Your task to perform on an android device: open app "Google Find My Device" (install if not already installed) Image 0: 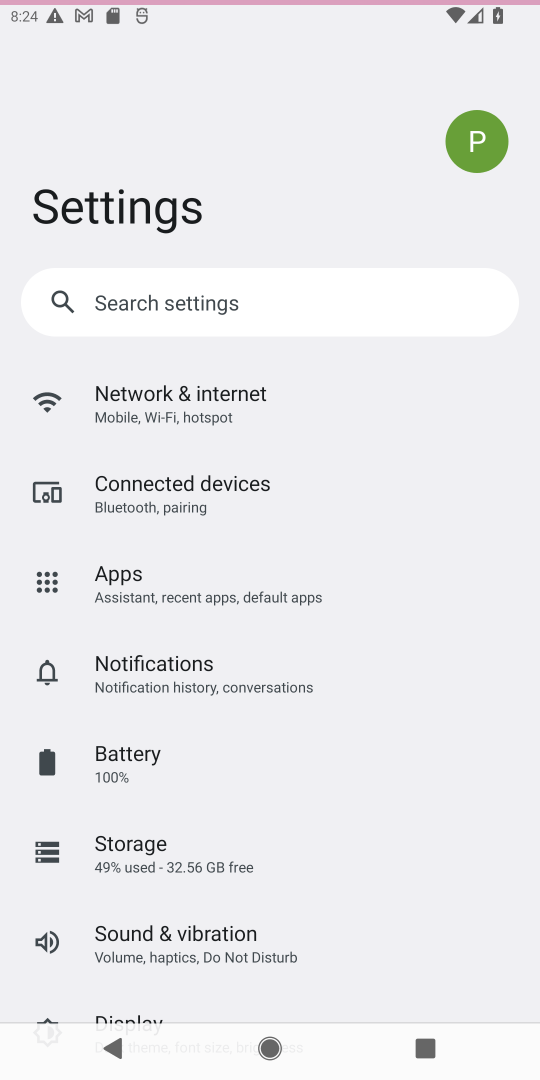
Step 0: press home button
Your task to perform on an android device: open app "Google Find My Device" (install if not already installed) Image 1: 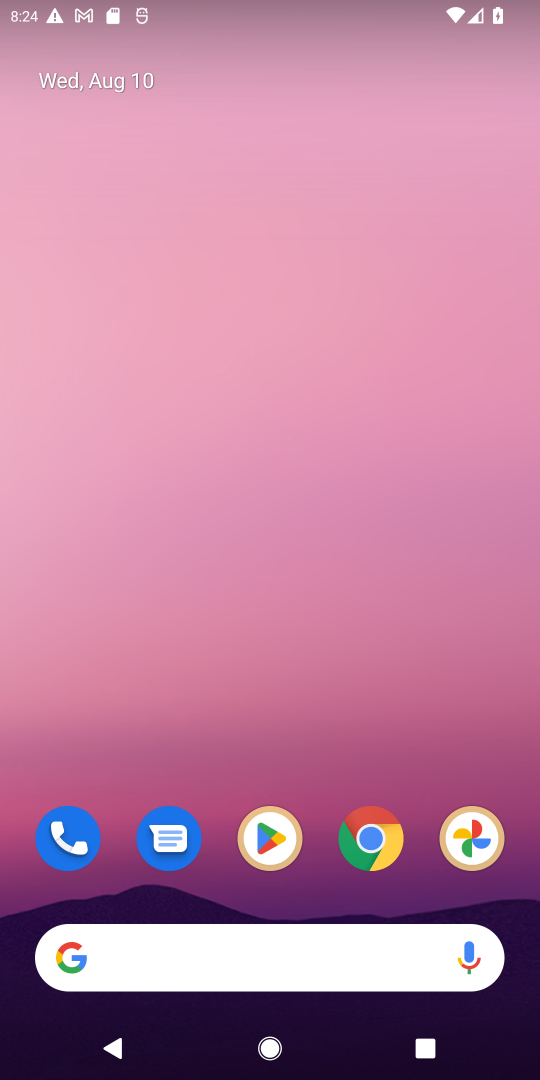
Step 1: click (276, 832)
Your task to perform on an android device: open app "Google Find My Device" (install if not already installed) Image 2: 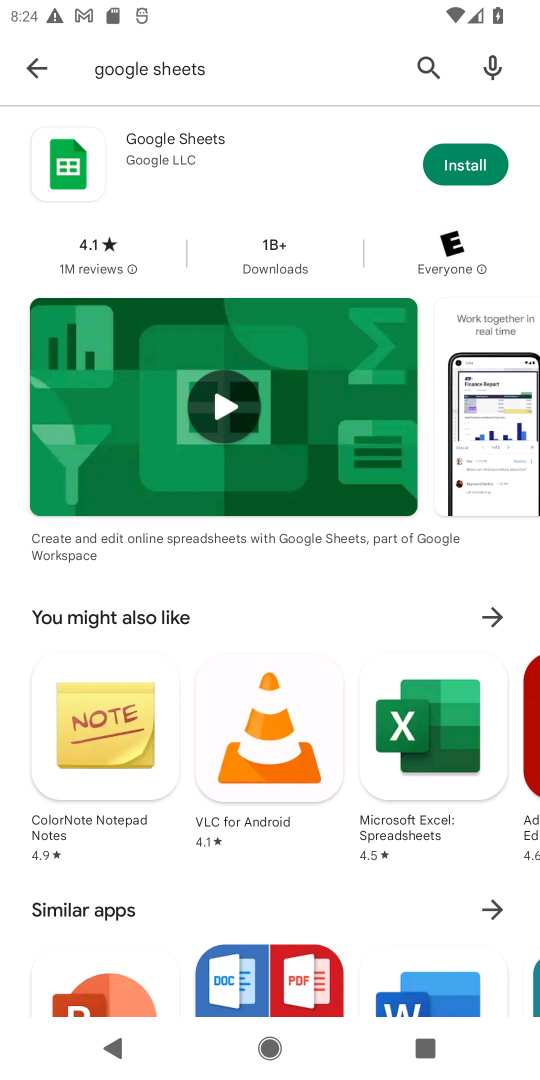
Step 2: click (420, 68)
Your task to perform on an android device: open app "Google Find My Device" (install if not already installed) Image 3: 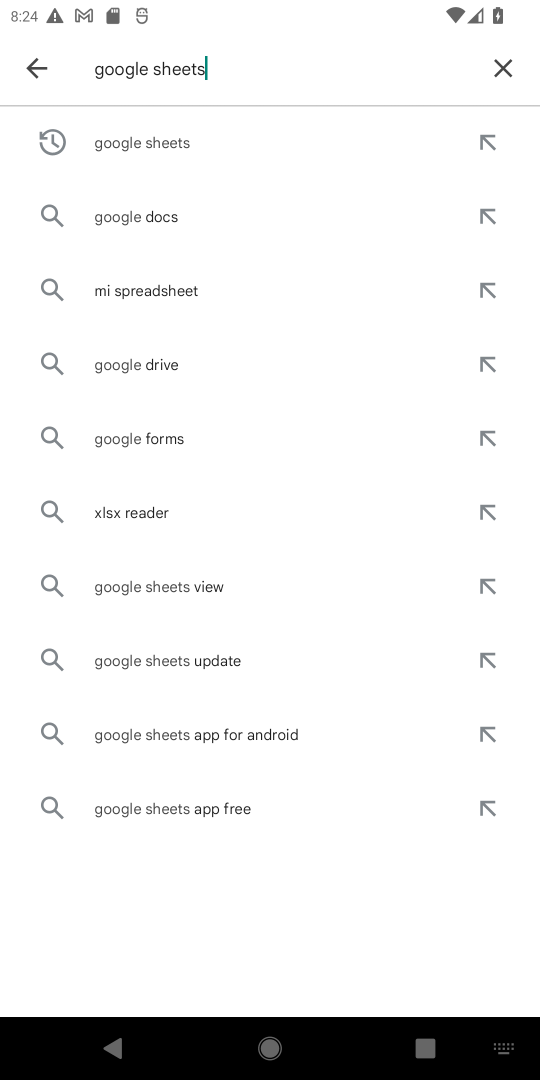
Step 3: click (499, 67)
Your task to perform on an android device: open app "Google Find My Device" (install if not already installed) Image 4: 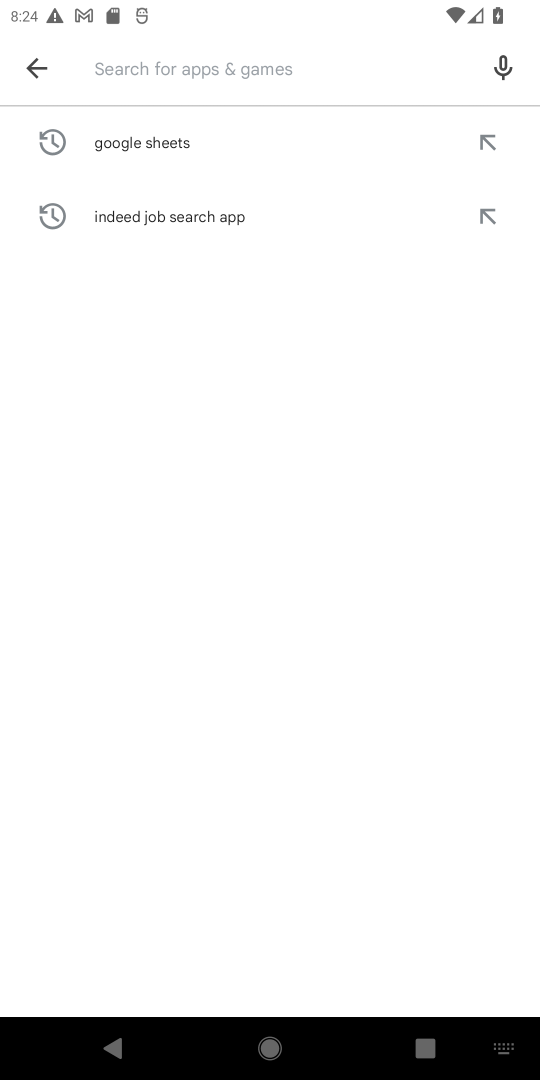
Step 4: type "Google Find My Device"
Your task to perform on an android device: open app "Google Find My Device" (install if not already installed) Image 5: 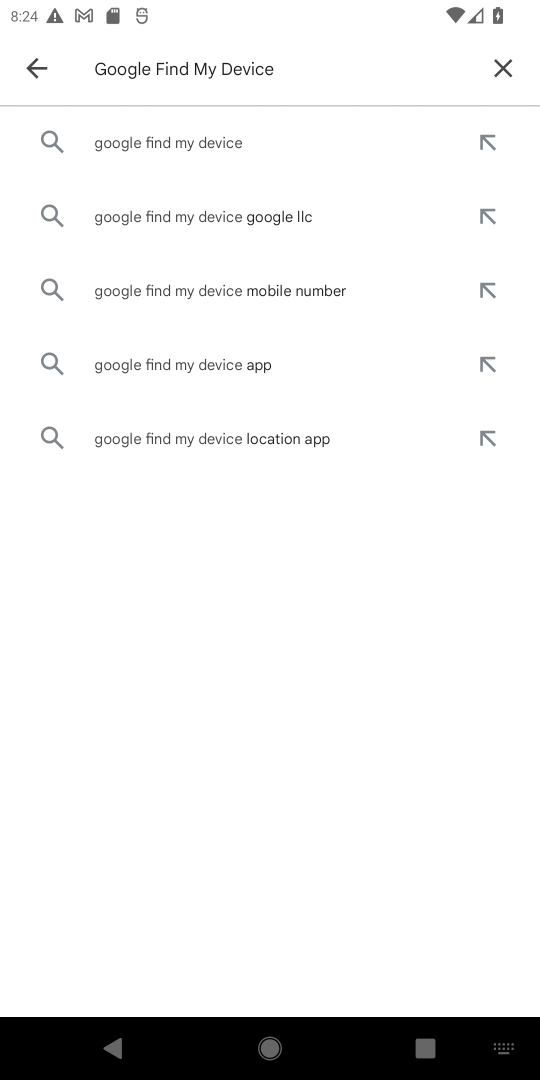
Step 5: click (205, 132)
Your task to perform on an android device: open app "Google Find My Device" (install if not already installed) Image 6: 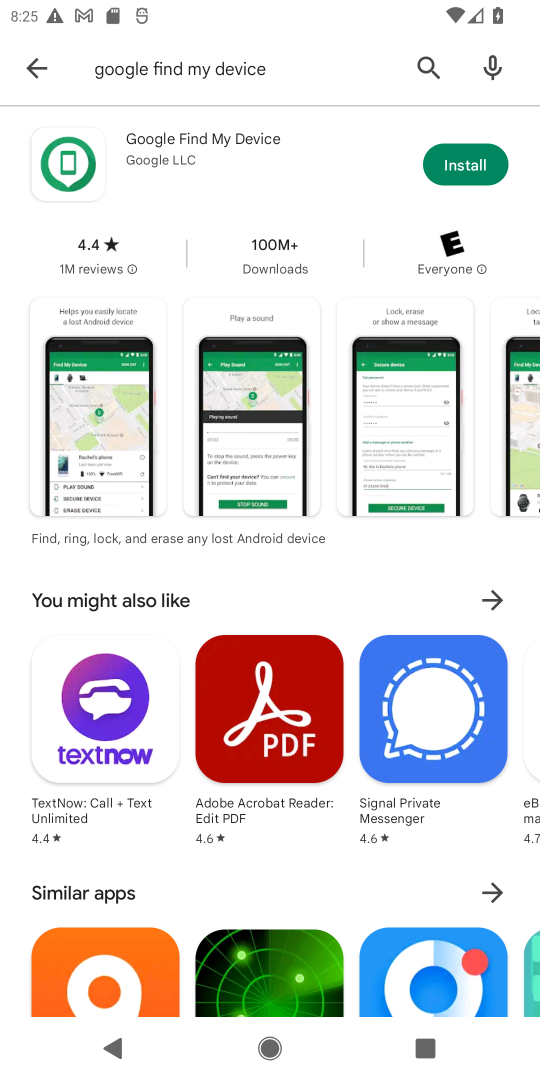
Step 6: click (466, 157)
Your task to perform on an android device: open app "Google Find My Device" (install if not already installed) Image 7: 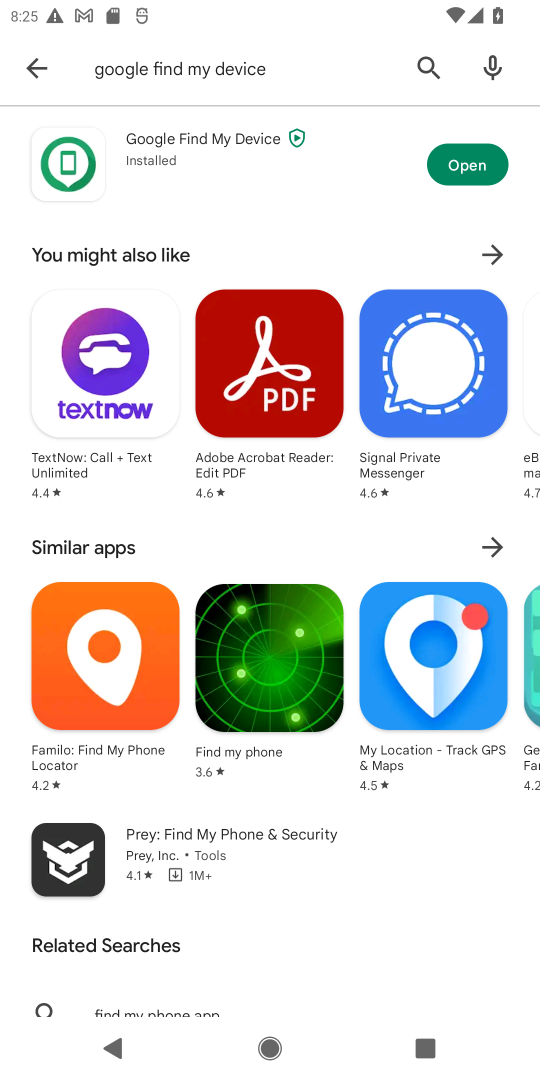
Step 7: click (465, 174)
Your task to perform on an android device: open app "Google Find My Device" (install if not already installed) Image 8: 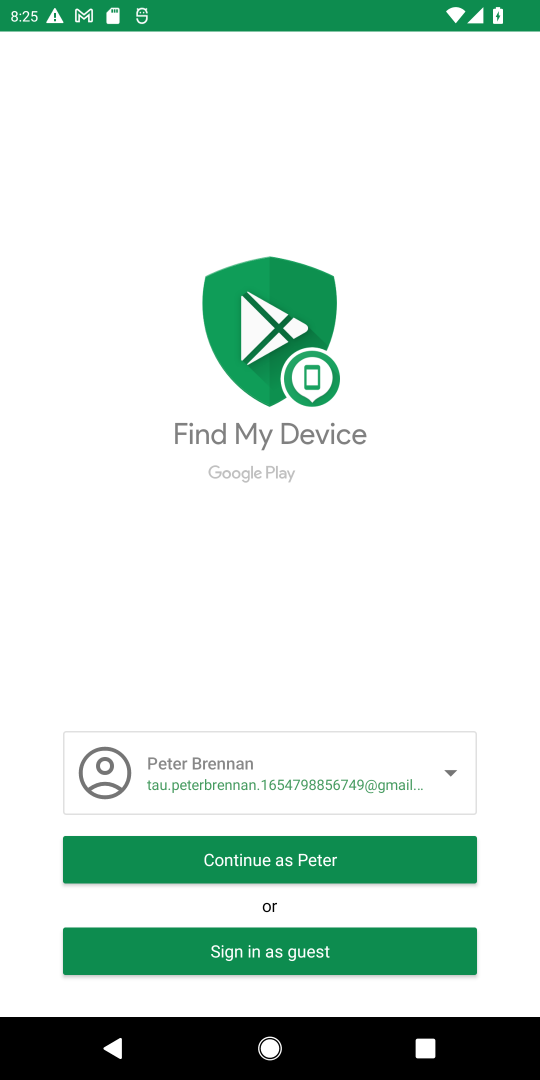
Step 8: click (265, 855)
Your task to perform on an android device: open app "Google Find My Device" (install if not already installed) Image 9: 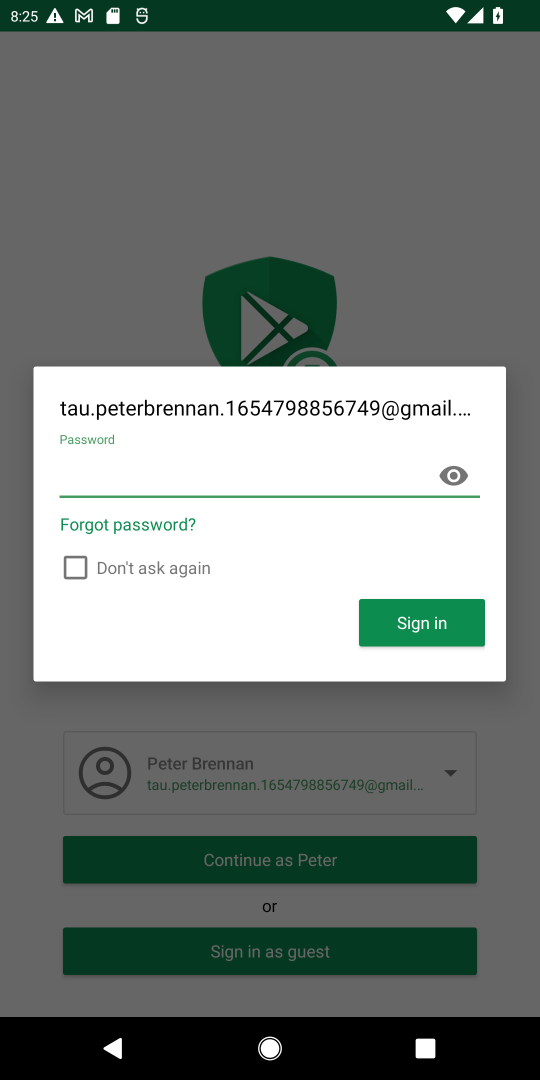
Step 9: click (192, 190)
Your task to perform on an android device: open app "Google Find My Device" (install if not already installed) Image 10: 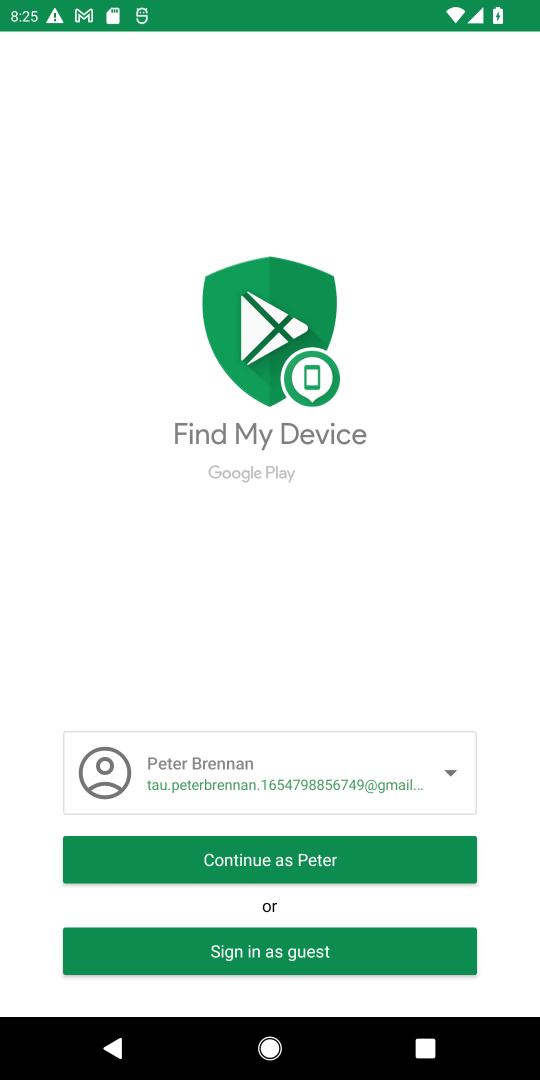
Step 10: click (311, 853)
Your task to perform on an android device: open app "Google Find My Device" (install if not already installed) Image 11: 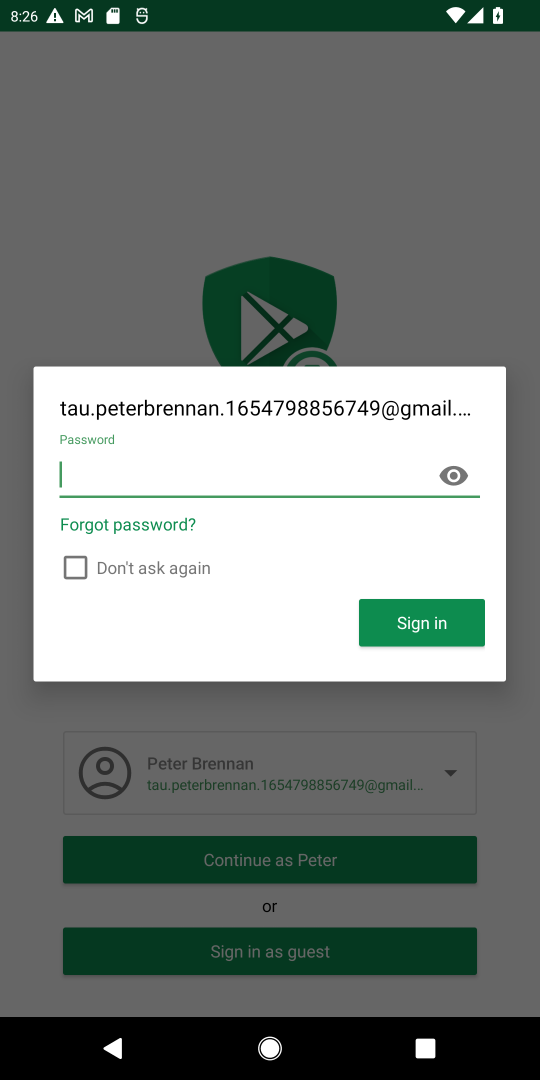
Step 11: task complete